Your task to perform on an android device: turn on airplane mode Image 0: 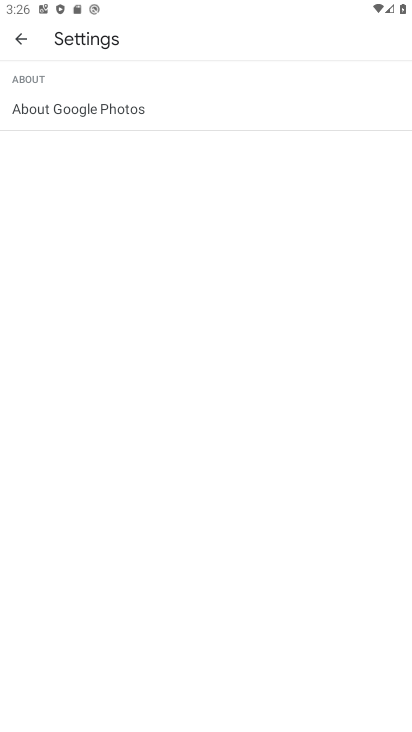
Step 0: press home button
Your task to perform on an android device: turn on airplane mode Image 1: 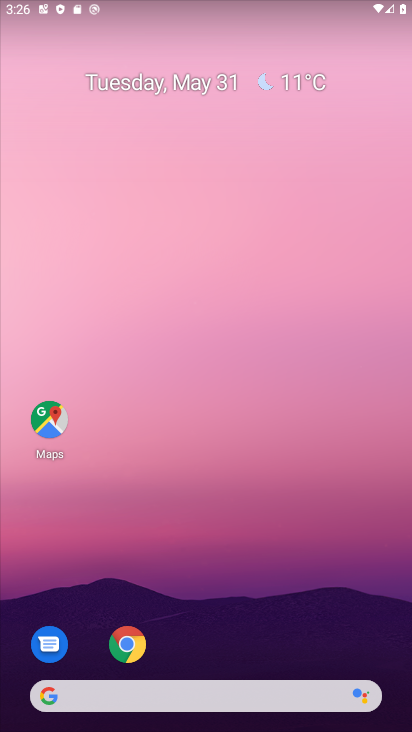
Step 1: drag from (286, 651) to (229, 297)
Your task to perform on an android device: turn on airplane mode Image 2: 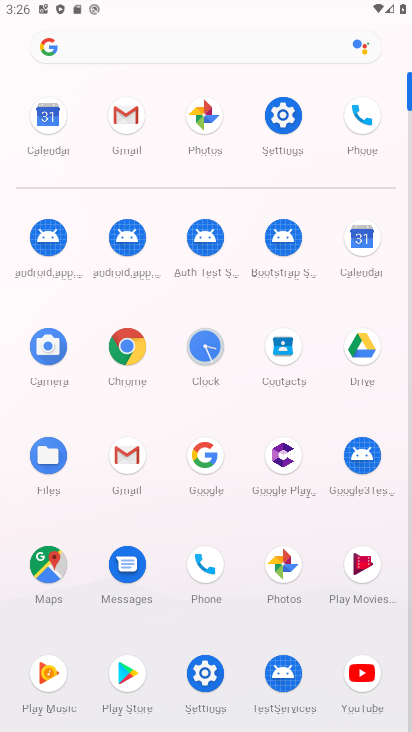
Step 2: click (277, 122)
Your task to perform on an android device: turn on airplane mode Image 3: 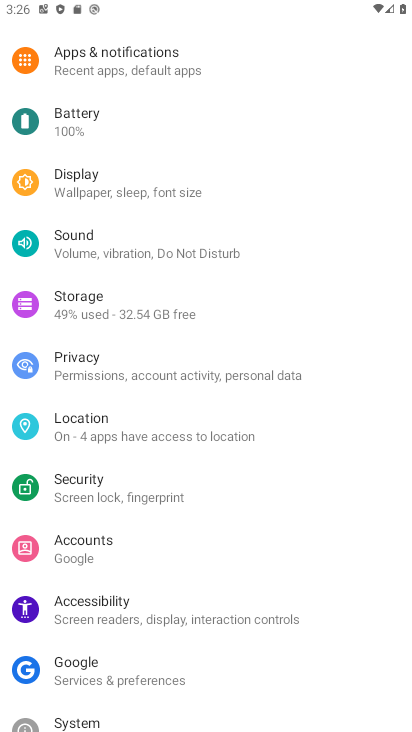
Step 3: drag from (277, 154) to (343, 729)
Your task to perform on an android device: turn on airplane mode Image 4: 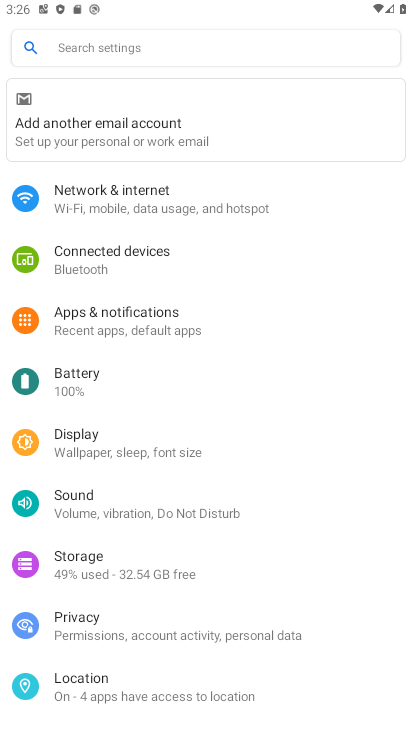
Step 4: click (179, 213)
Your task to perform on an android device: turn on airplane mode Image 5: 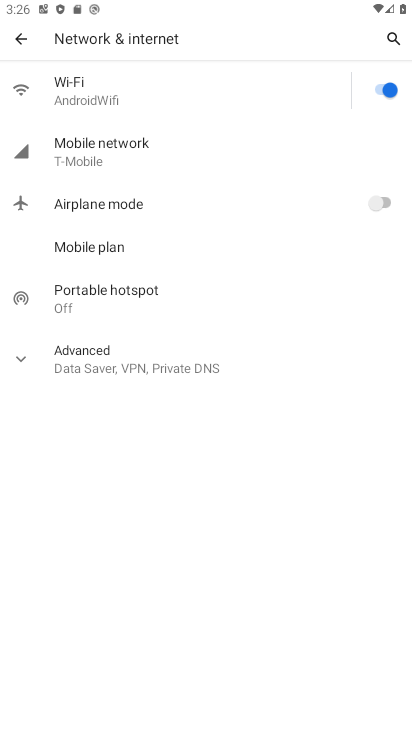
Step 5: click (330, 216)
Your task to perform on an android device: turn on airplane mode Image 6: 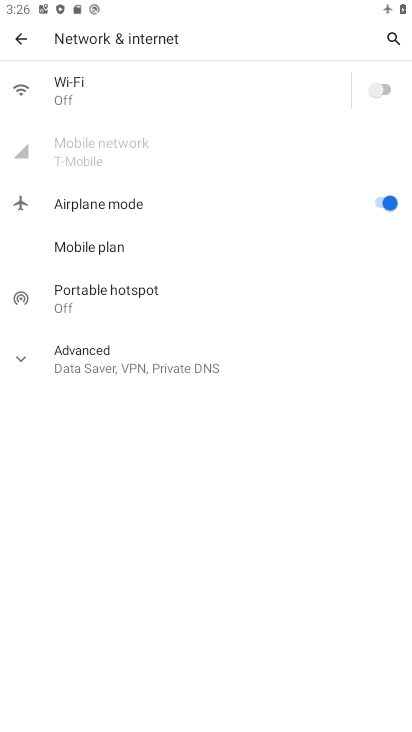
Step 6: task complete